Your task to perform on an android device: turn off picture-in-picture Image 0: 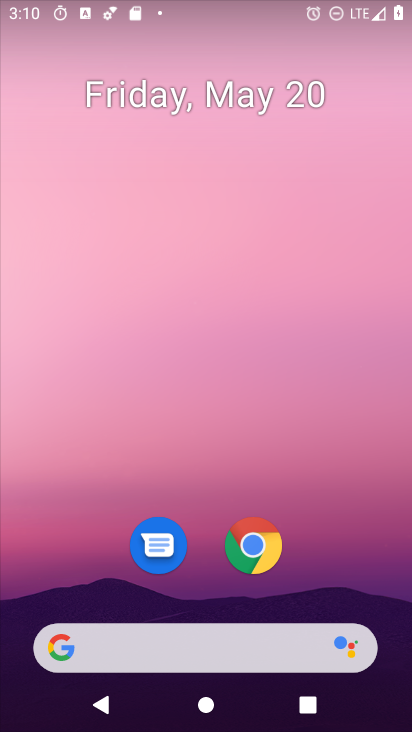
Step 0: drag from (213, 649) to (371, 88)
Your task to perform on an android device: turn off picture-in-picture Image 1: 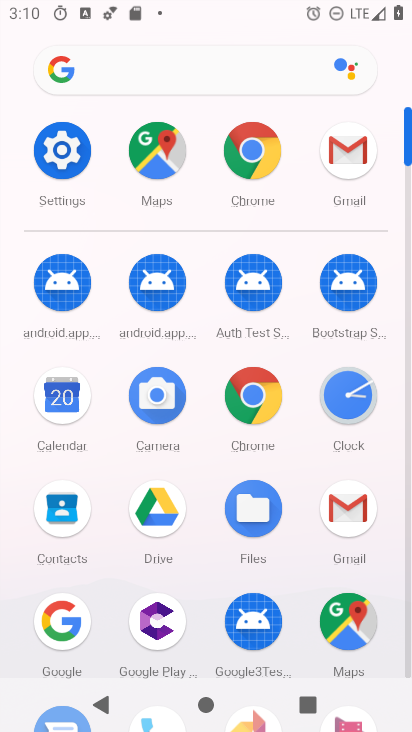
Step 1: drag from (289, 689) to (252, 230)
Your task to perform on an android device: turn off picture-in-picture Image 2: 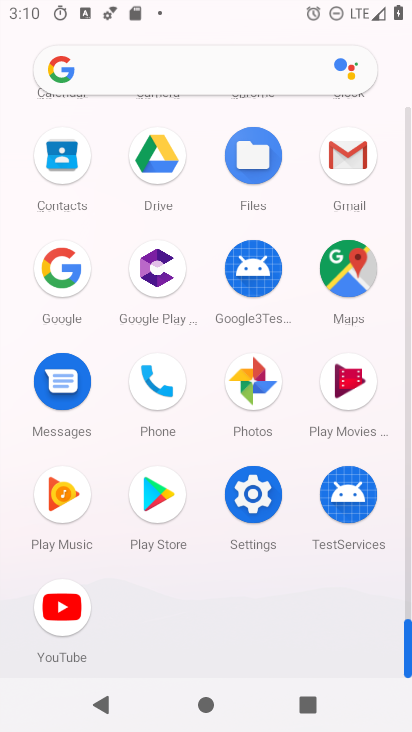
Step 2: click (254, 514)
Your task to perform on an android device: turn off picture-in-picture Image 3: 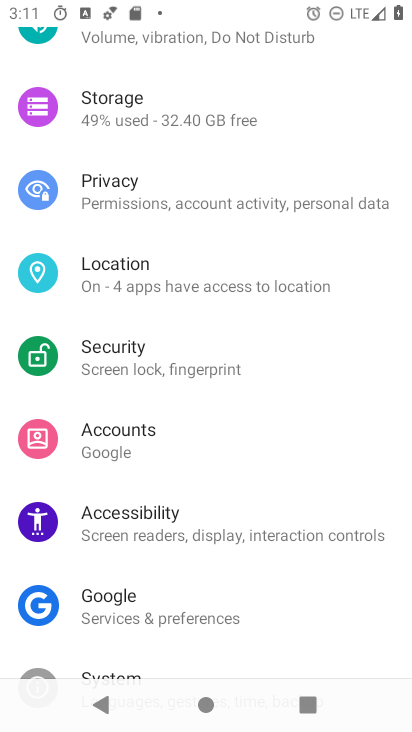
Step 3: drag from (230, 206) to (352, 675)
Your task to perform on an android device: turn off picture-in-picture Image 4: 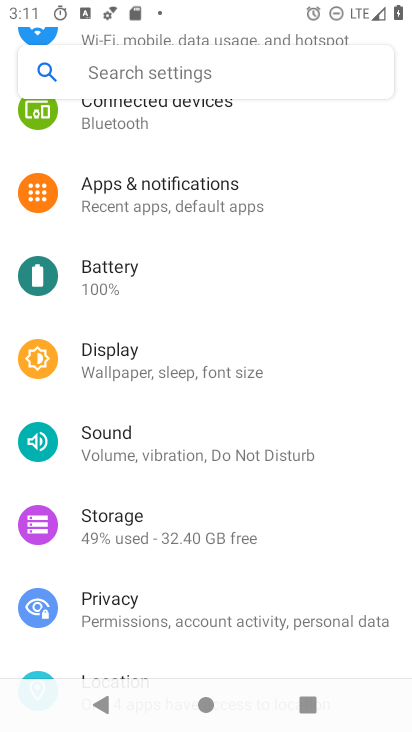
Step 4: click (228, 203)
Your task to perform on an android device: turn off picture-in-picture Image 5: 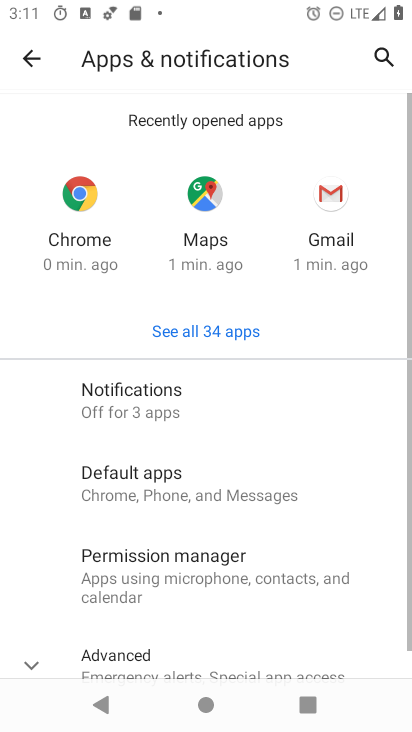
Step 5: drag from (288, 634) to (293, 103)
Your task to perform on an android device: turn off picture-in-picture Image 6: 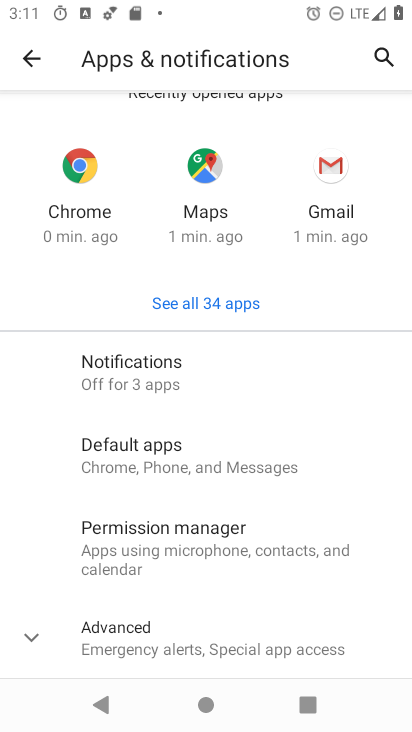
Step 6: click (272, 647)
Your task to perform on an android device: turn off picture-in-picture Image 7: 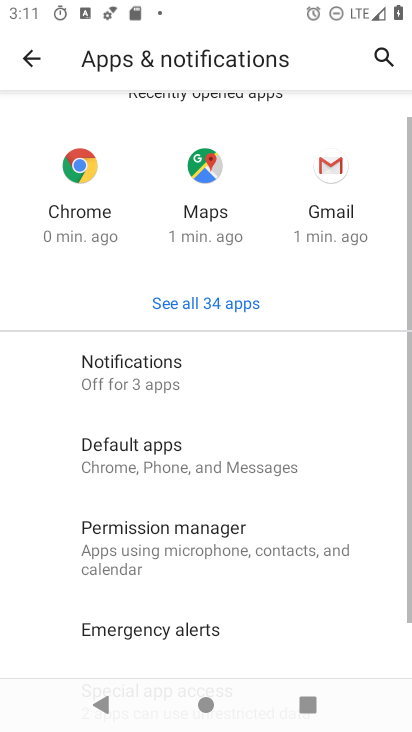
Step 7: drag from (272, 647) to (291, 177)
Your task to perform on an android device: turn off picture-in-picture Image 8: 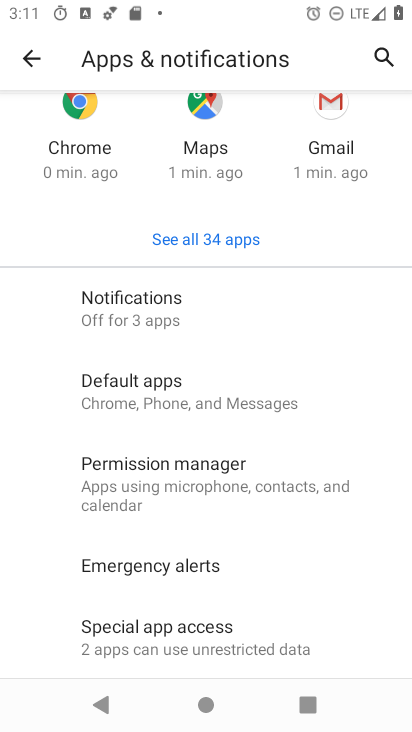
Step 8: click (273, 639)
Your task to perform on an android device: turn off picture-in-picture Image 9: 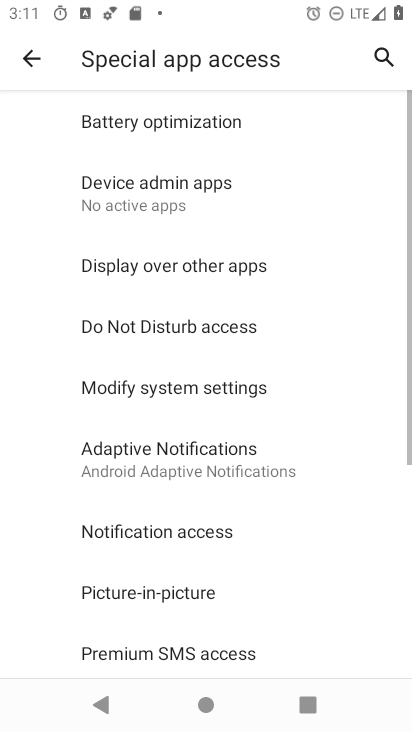
Step 9: drag from (273, 639) to (278, 273)
Your task to perform on an android device: turn off picture-in-picture Image 10: 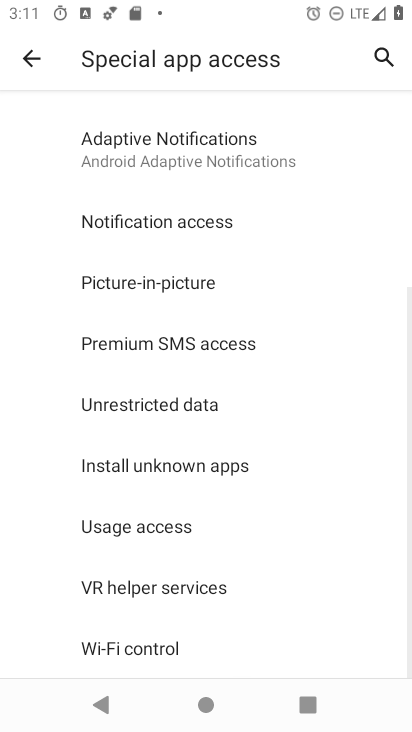
Step 10: click (214, 276)
Your task to perform on an android device: turn off picture-in-picture Image 11: 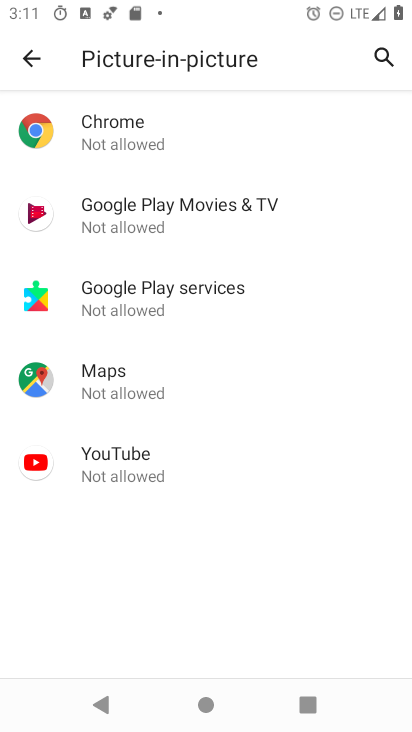
Step 11: task complete